Your task to perform on an android device: Go to wifi settings Image 0: 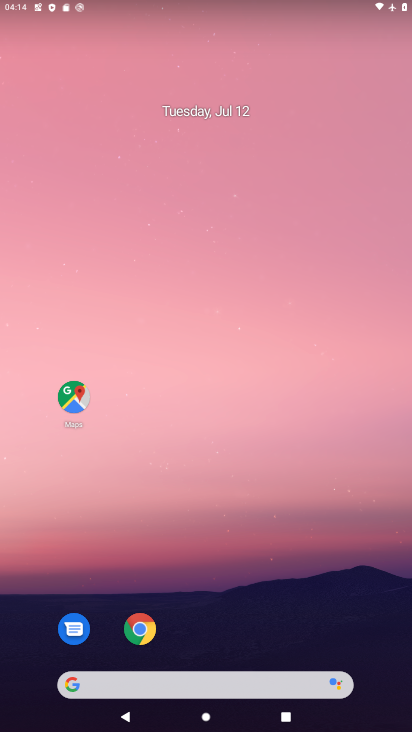
Step 0: drag from (330, 483) to (299, 81)
Your task to perform on an android device: Go to wifi settings Image 1: 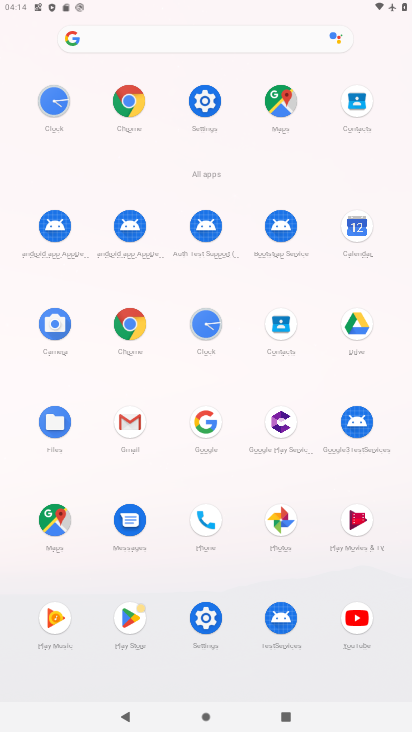
Step 1: click (213, 96)
Your task to perform on an android device: Go to wifi settings Image 2: 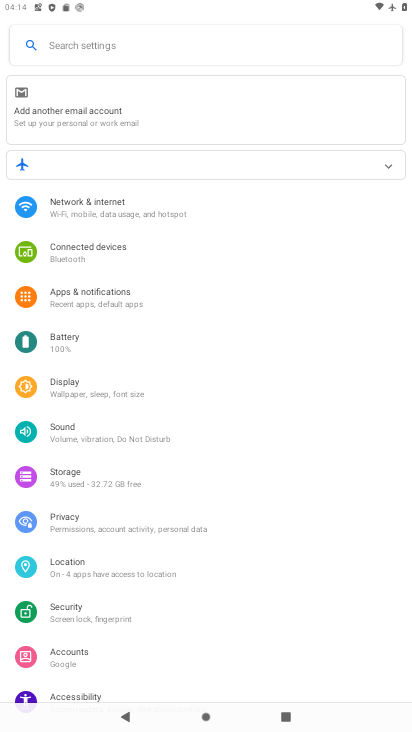
Step 2: click (164, 214)
Your task to perform on an android device: Go to wifi settings Image 3: 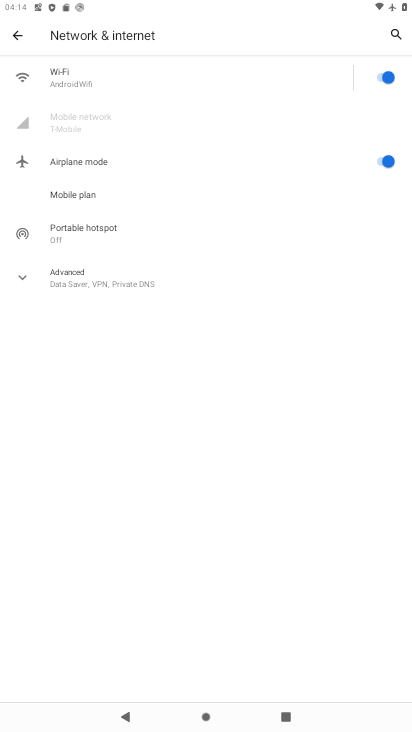
Step 3: click (228, 79)
Your task to perform on an android device: Go to wifi settings Image 4: 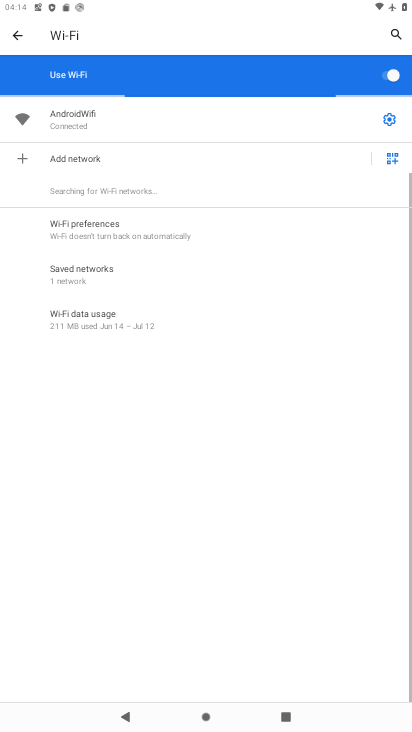
Step 4: click (394, 120)
Your task to perform on an android device: Go to wifi settings Image 5: 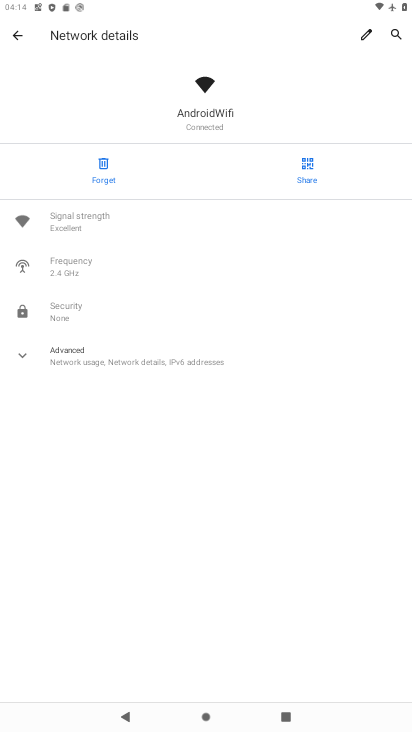
Step 5: task complete